Your task to perform on an android device: Go to Google maps Image 0: 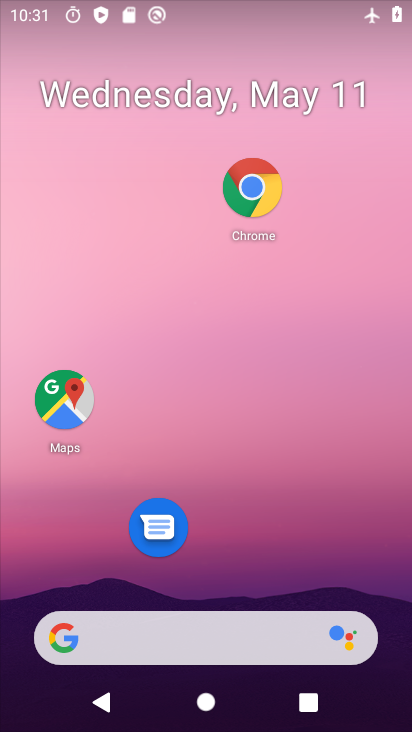
Step 0: click (69, 404)
Your task to perform on an android device: Go to Google maps Image 1: 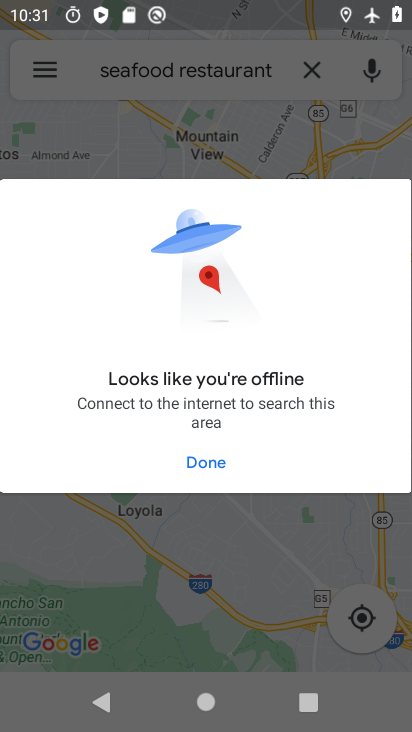
Step 1: task complete